Your task to perform on an android device: check out phone information Image 0: 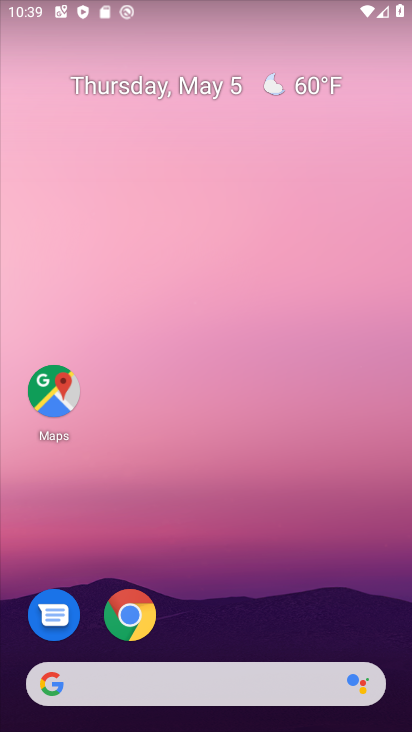
Step 0: drag from (235, 601) to (251, 177)
Your task to perform on an android device: check out phone information Image 1: 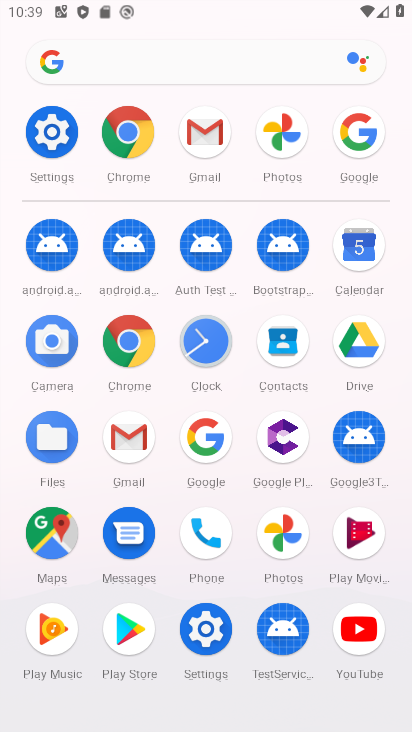
Step 1: click (52, 134)
Your task to perform on an android device: check out phone information Image 2: 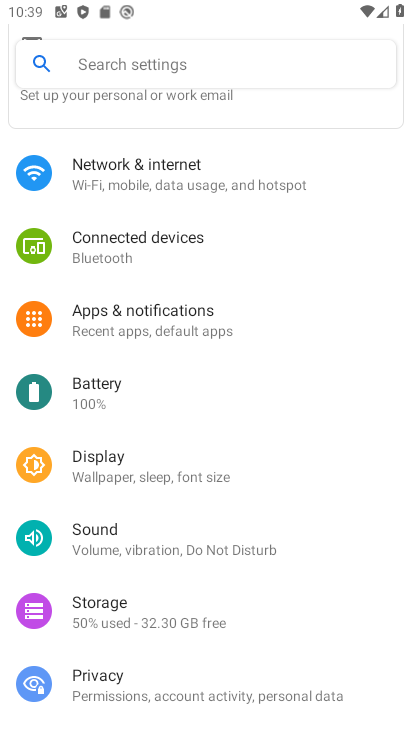
Step 2: drag from (356, 569) to (321, 74)
Your task to perform on an android device: check out phone information Image 3: 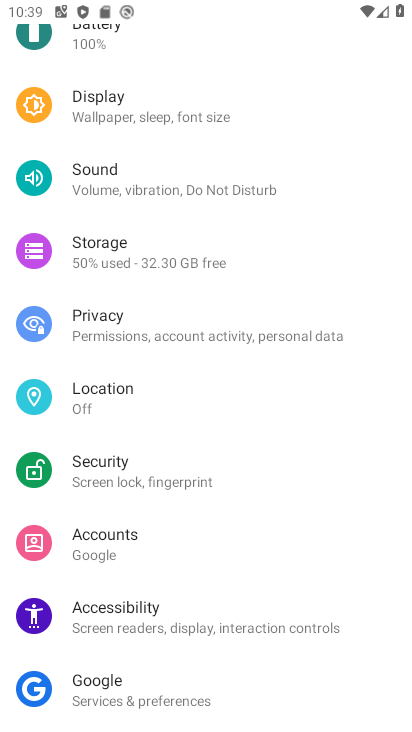
Step 3: drag from (215, 581) to (291, 156)
Your task to perform on an android device: check out phone information Image 4: 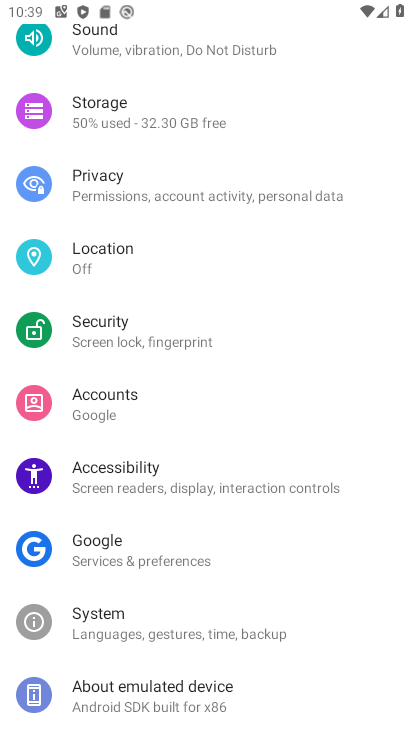
Step 4: click (133, 698)
Your task to perform on an android device: check out phone information Image 5: 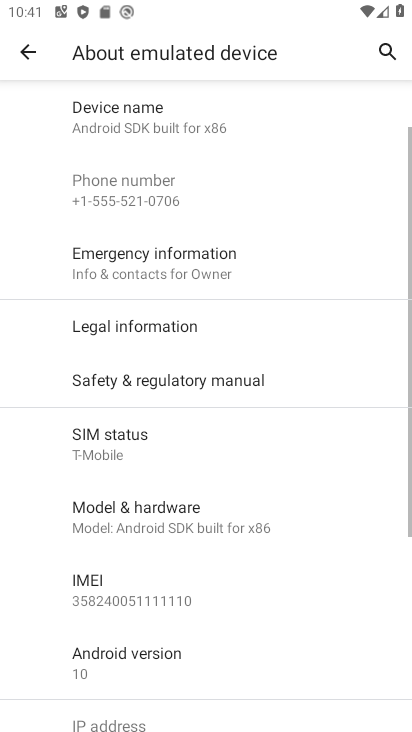
Step 5: task complete